Your task to perform on an android device: Open my contact list Image 0: 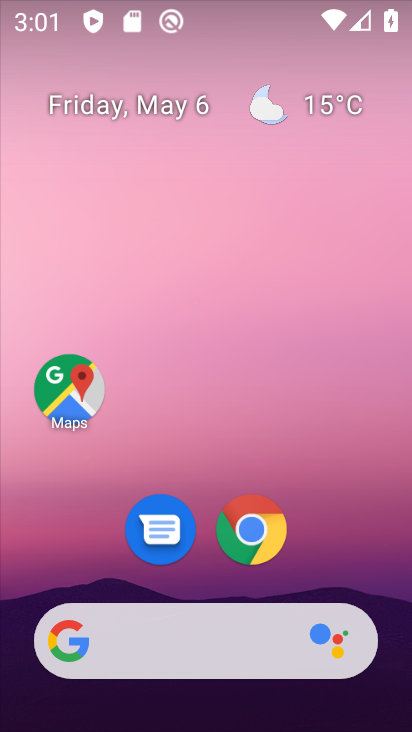
Step 0: drag from (355, 581) to (90, 267)
Your task to perform on an android device: Open my contact list Image 1: 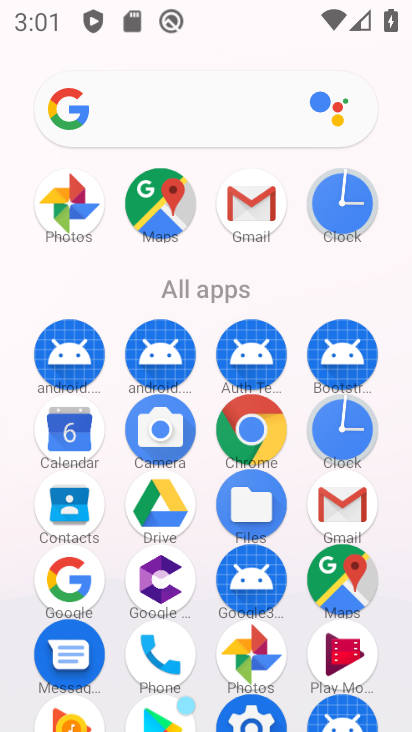
Step 1: drag from (114, 564) to (59, 359)
Your task to perform on an android device: Open my contact list Image 2: 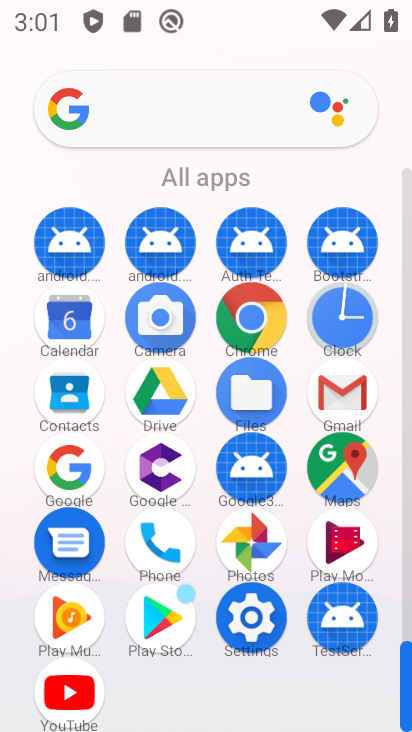
Step 2: click (48, 399)
Your task to perform on an android device: Open my contact list Image 3: 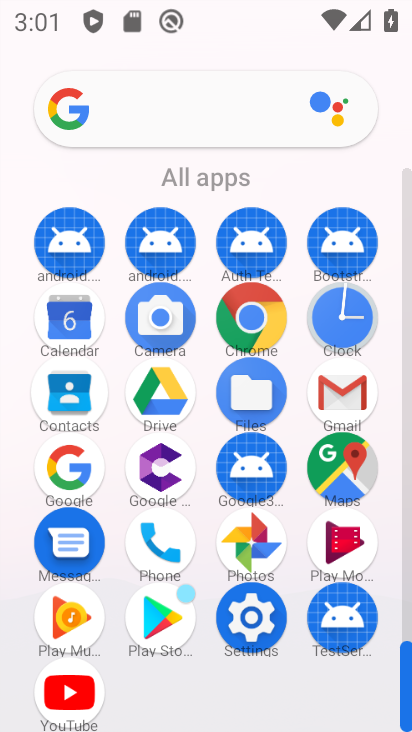
Step 3: click (49, 396)
Your task to perform on an android device: Open my contact list Image 4: 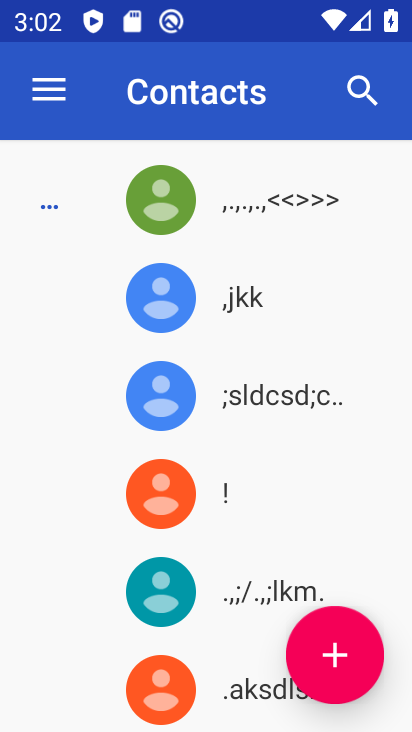
Step 4: task complete